Your task to perform on an android device: allow notifications from all sites in the chrome app Image 0: 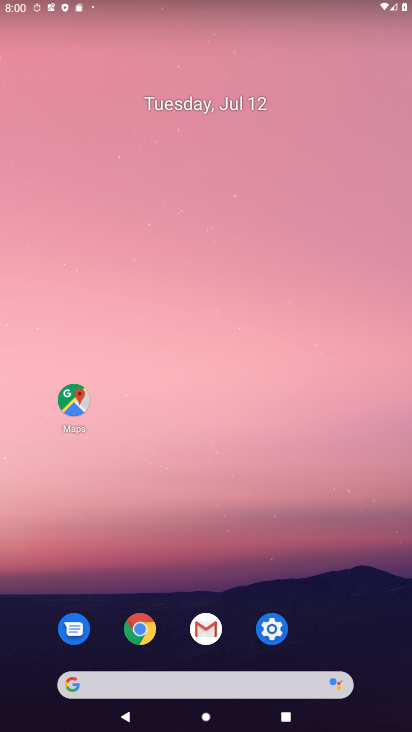
Step 0: press home button
Your task to perform on an android device: allow notifications from all sites in the chrome app Image 1: 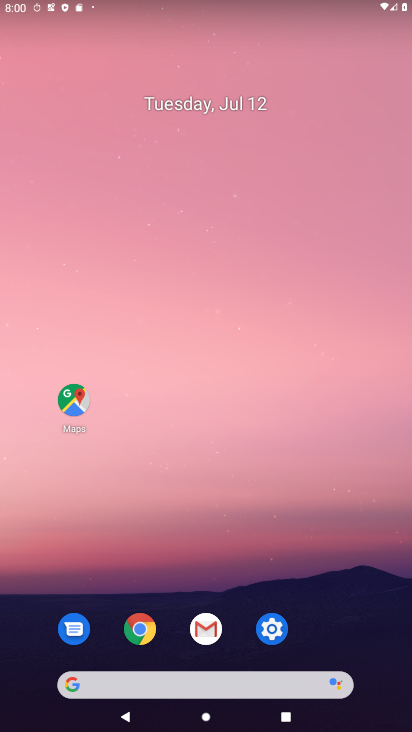
Step 1: click (148, 618)
Your task to perform on an android device: allow notifications from all sites in the chrome app Image 2: 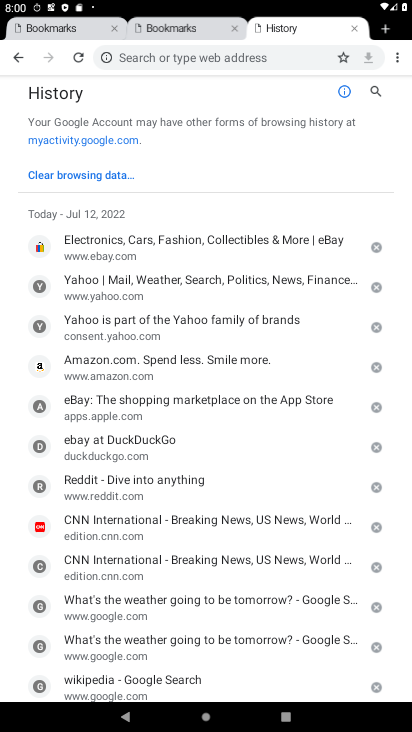
Step 2: click (399, 61)
Your task to perform on an android device: allow notifications from all sites in the chrome app Image 3: 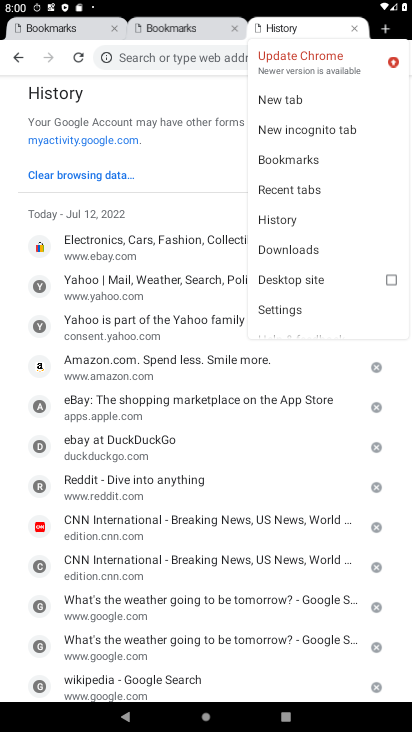
Step 3: click (280, 309)
Your task to perform on an android device: allow notifications from all sites in the chrome app Image 4: 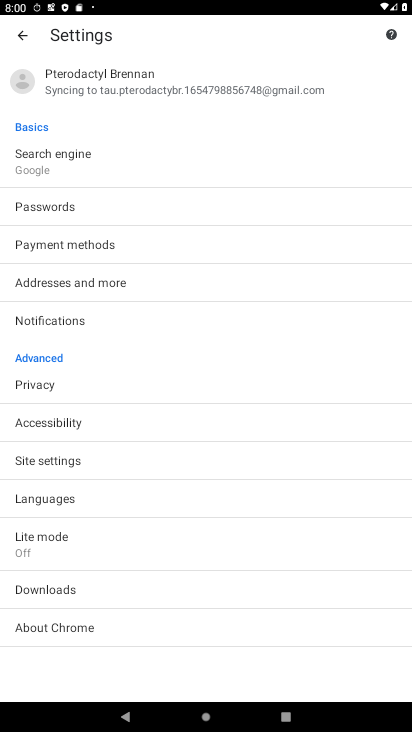
Step 4: click (83, 460)
Your task to perform on an android device: allow notifications from all sites in the chrome app Image 5: 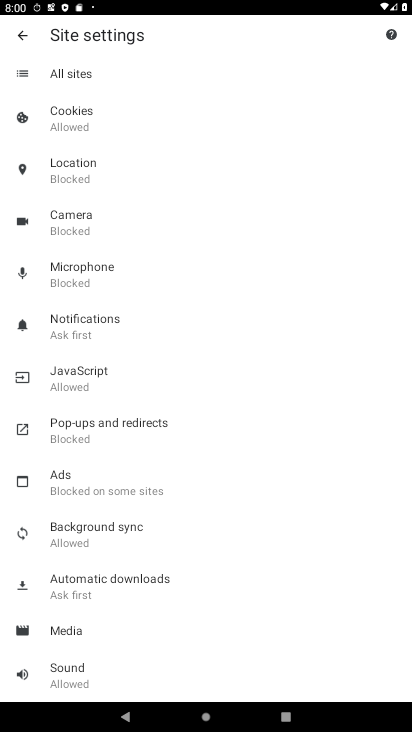
Step 5: click (79, 326)
Your task to perform on an android device: allow notifications from all sites in the chrome app Image 6: 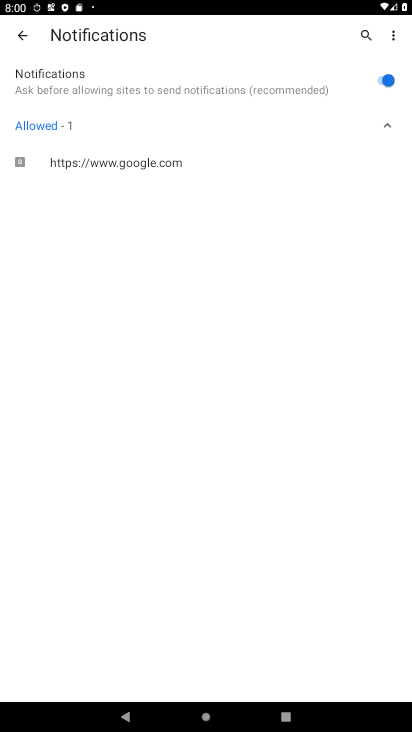
Step 6: click (385, 86)
Your task to perform on an android device: allow notifications from all sites in the chrome app Image 7: 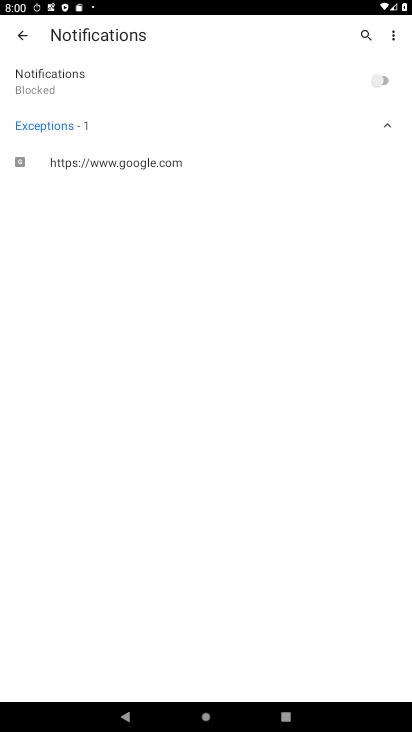
Step 7: click (385, 86)
Your task to perform on an android device: allow notifications from all sites in the chrome app Image 8: 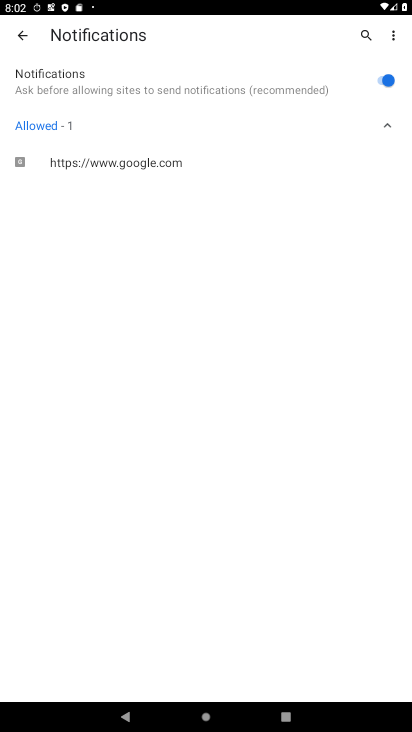
Step 8: task complete